Your task to perform on an android device: Add jbl charge 4 to the cart on ebay Image 0: 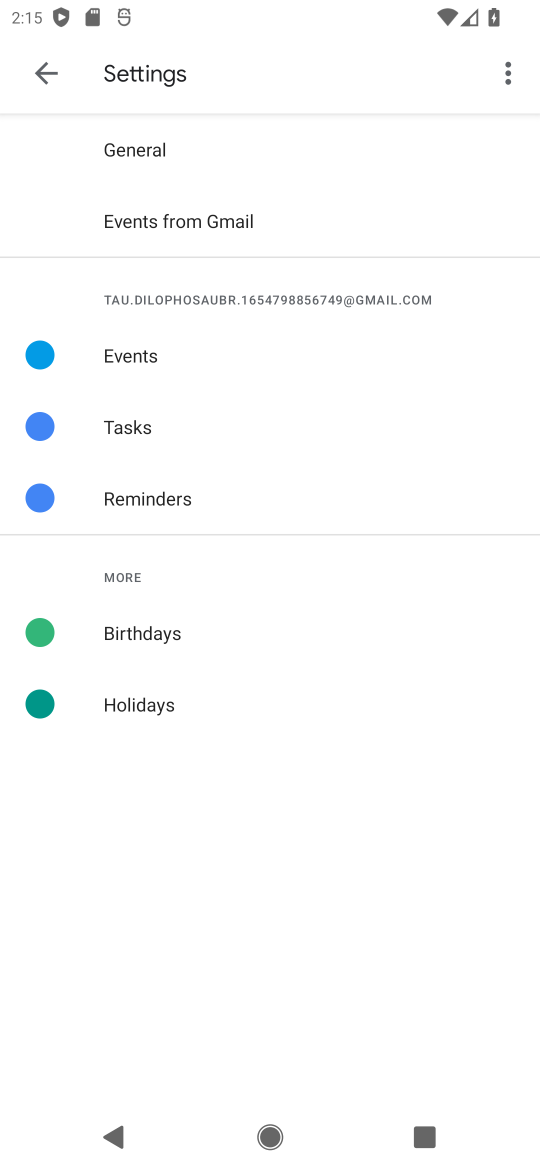
Step 0: press home button
Your task to perform on an android device: Add jbl charge 4 to the cart on ebay Image 1: 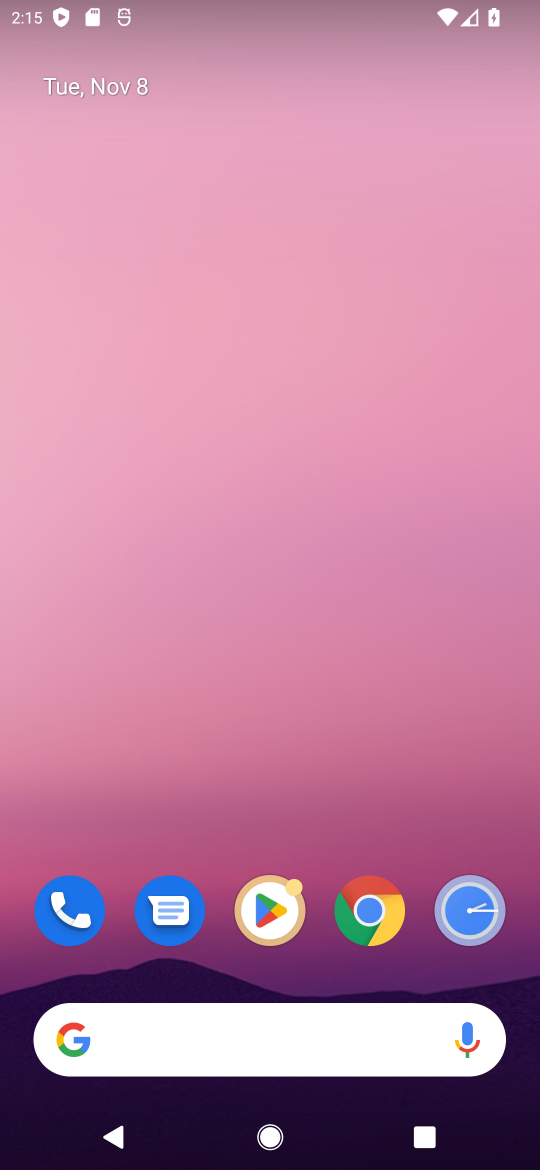
Step 1: drag from (314, 982) to (323, 20)
Your task to perform on an android device: Add jbl charge 4 to the cart on ebay Image 2: 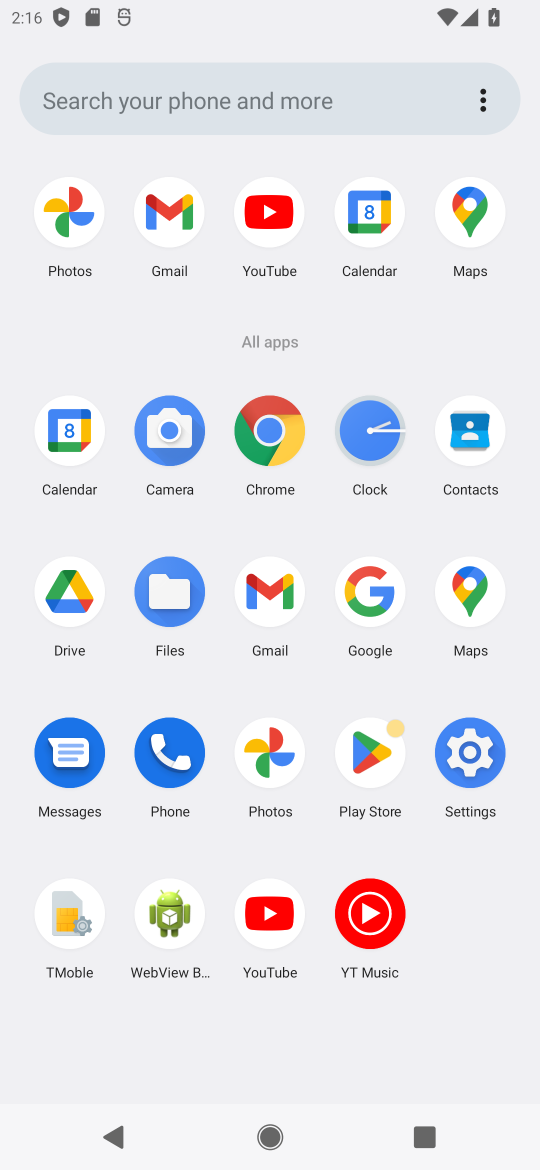
Step 2: click (267, 430)
Your task to perform on an android device: Add jbl charge 4 to the cart on ebay Image 3: 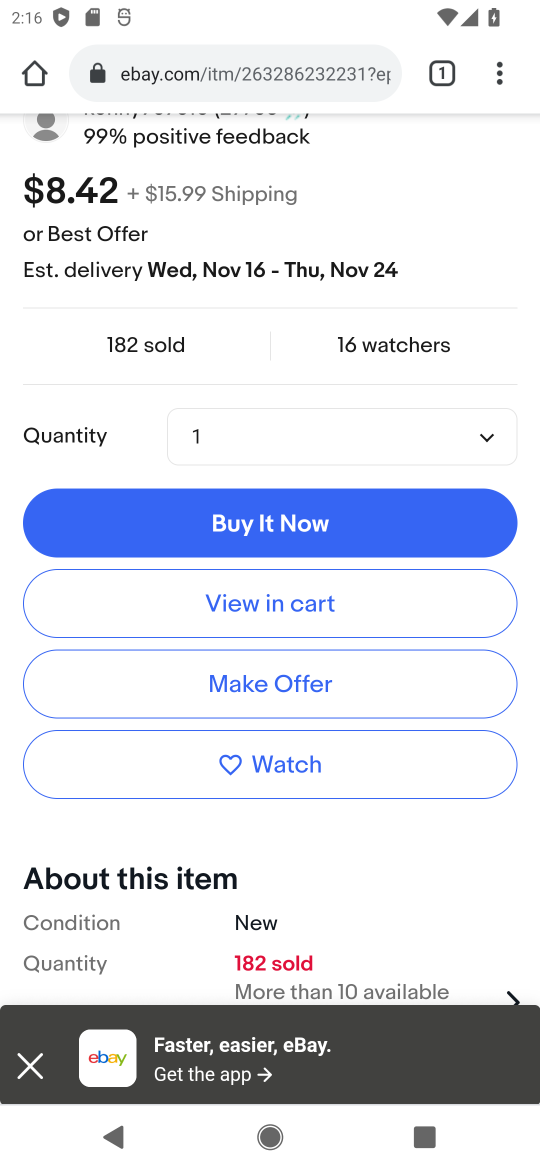
Step 3: click (253, 55)
Your task to perform on an android device: Add jbl charge 4 to the cart on ebay Image 4: 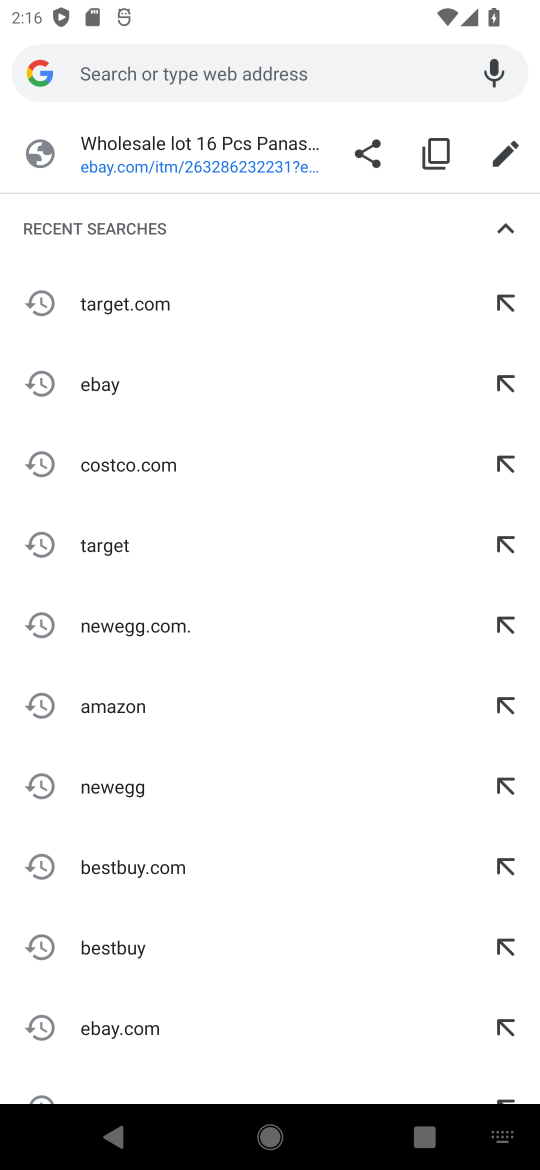
Step 4: type "ebay.coom"
Your task to perform on an android device: Add jbl charge 4 to the cart on ebay Image 5: 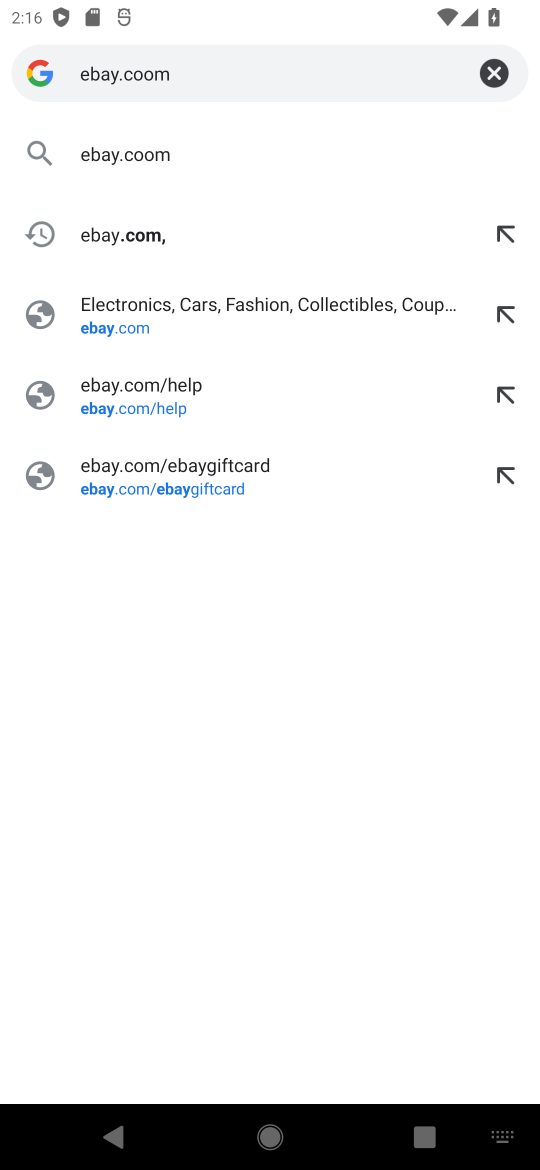
Step 5: press enter
Your task to perform on an android device: Add jbl charge 4 to the cart on ebay Image 6: 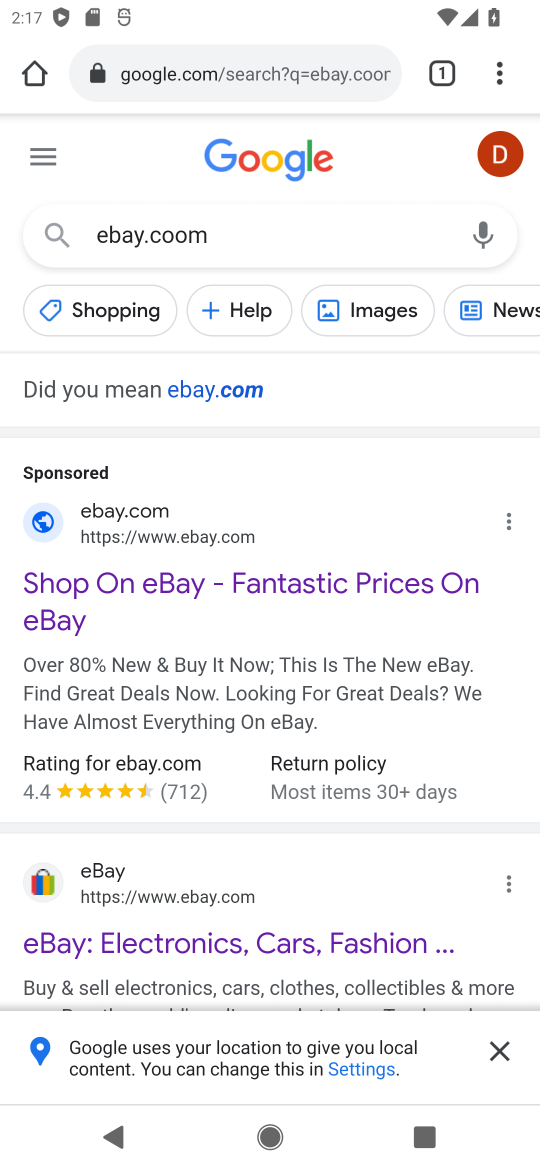
Step 6: click (149, 579)
Your task to perform on an android device: Add jbl charge 4 to the cart on ebay Image 7: 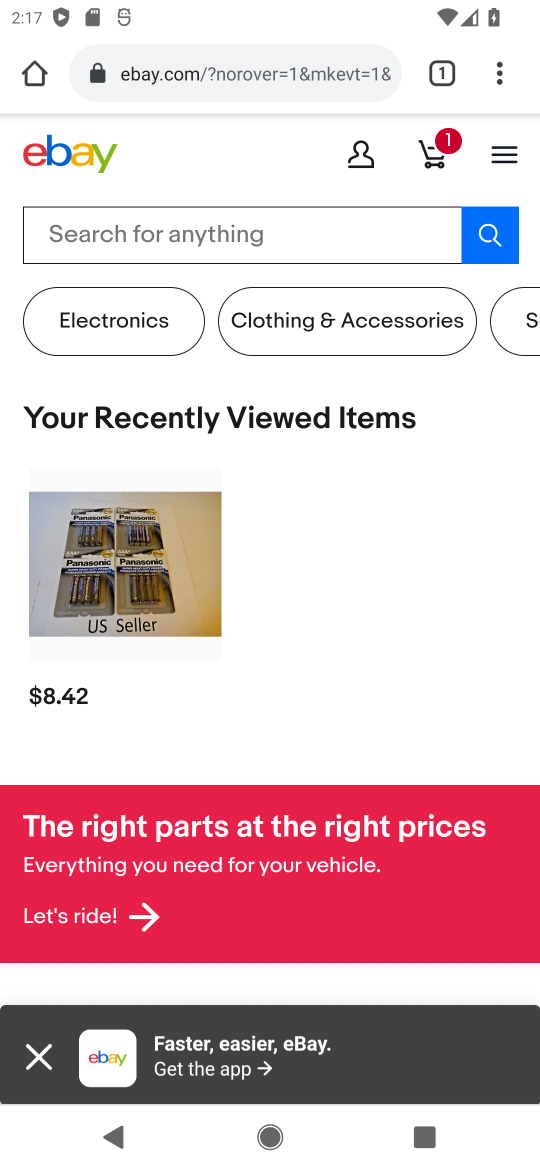
Step 7: click (362, 232)
Your task to perform on an android device: Add jbl charge 4 to the cart on ebay Image 8: 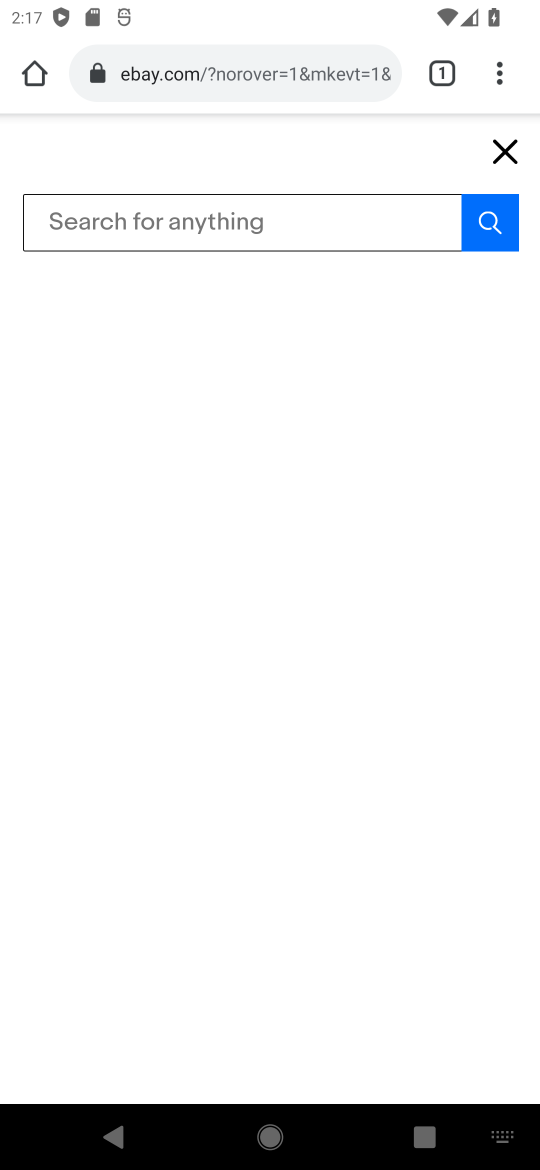
Step 8: type "jbl charge 4 "
Your task to perform on an android device: Add jbl charge 4 to the cart on ebay Image 9: 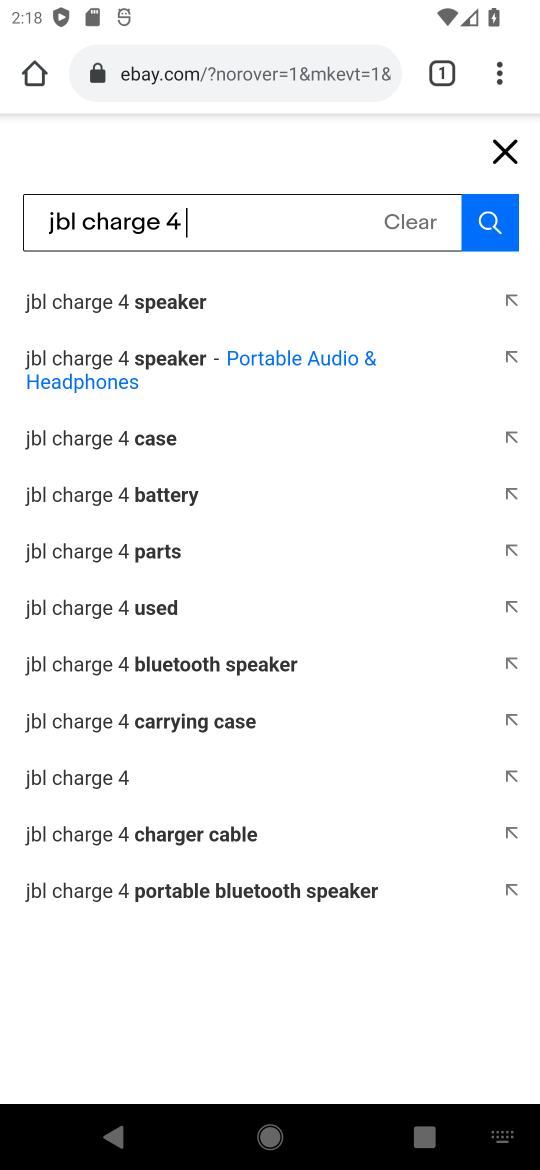
Step 9: click (482, 214)
Your task to perform on an android device: Add jbl charge 4 to the cart on ebay Image 10: 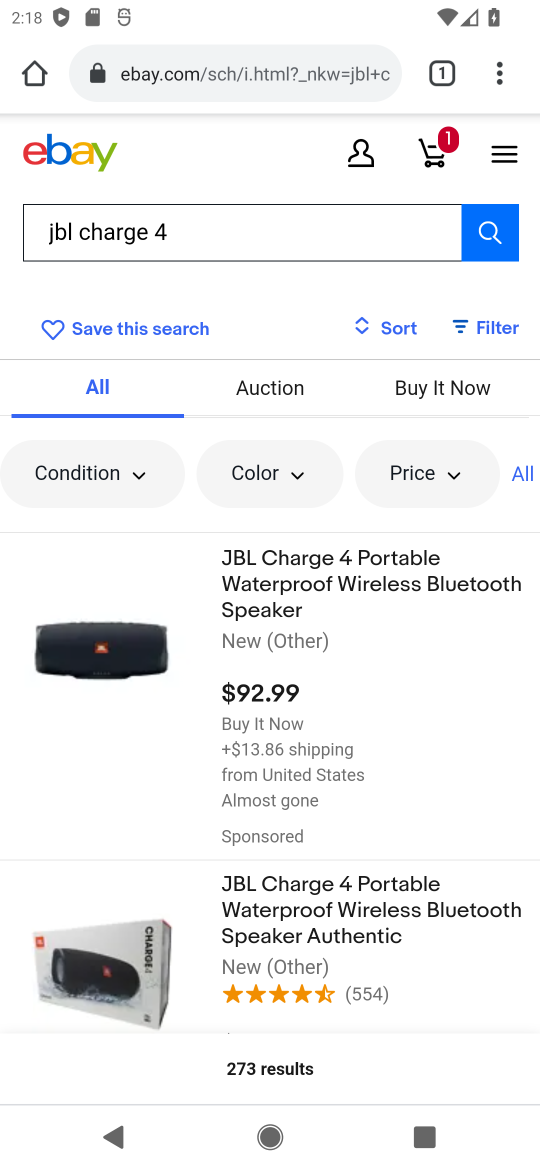
Step 10: click (312, 596)
Your task to perform on an android device: Add jbl charge 4 to the cart on ebay Image 11: 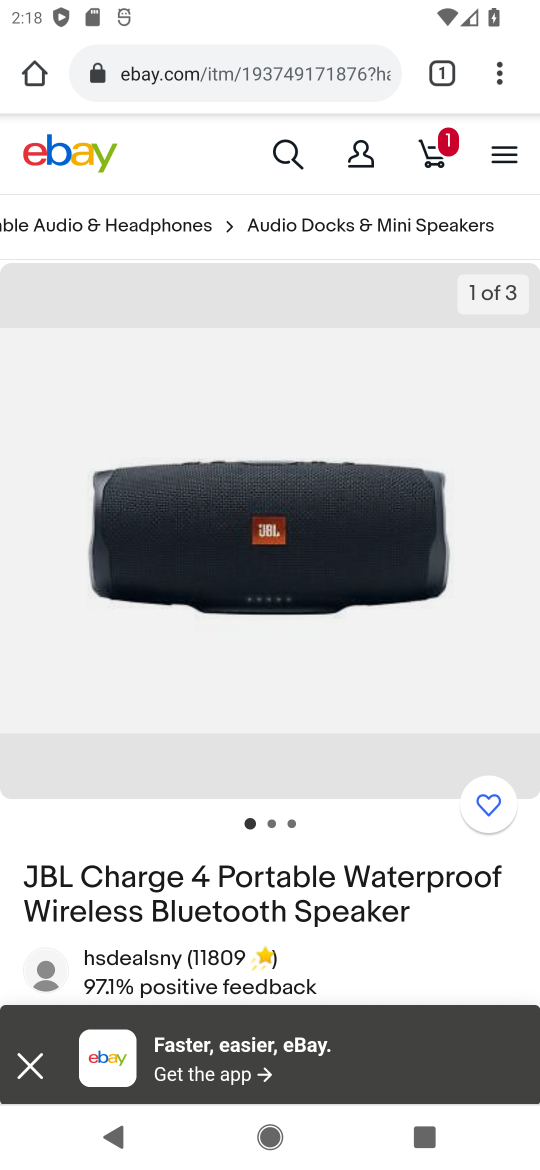
Step 11: drag from (362, 786) to (463, 97)
Your task to perform on an android device: Add jbl charge 4 to the cart on ebay Image 12: 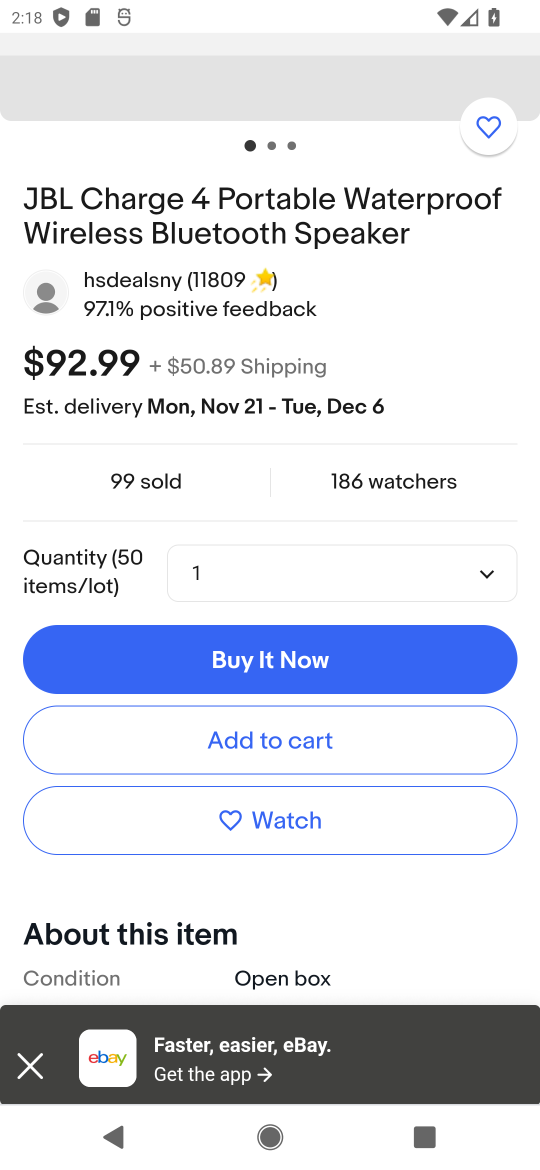
Step 12: click (361, 761)
Your task to perform on an android device: Add jbl charge 4 to the cart on ebay Image 13: 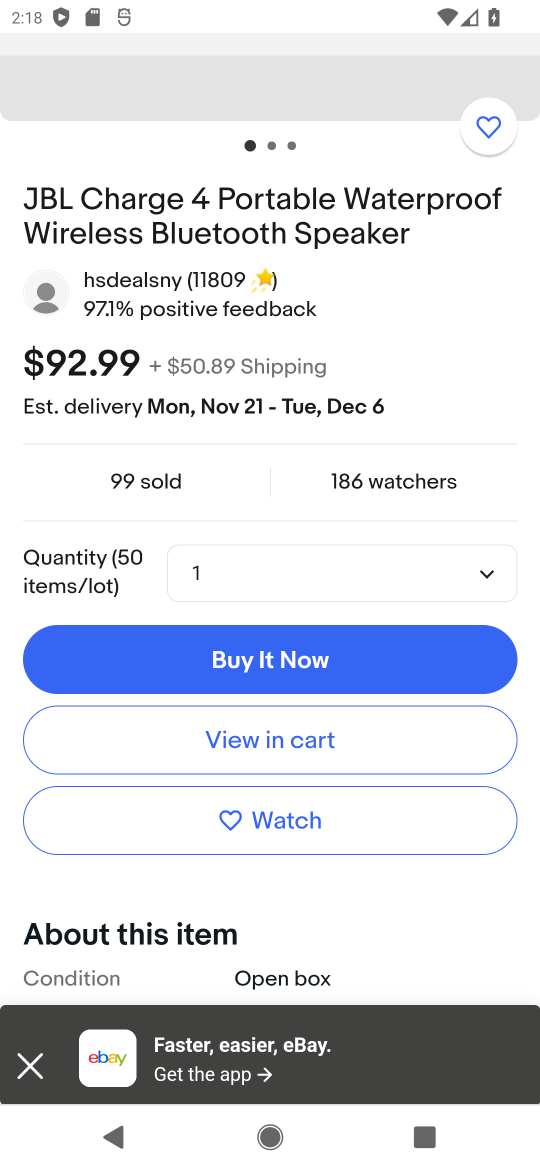
Step 13: task complete